Your task to perform on an android device: turn on translation in the chrome app Image 0: 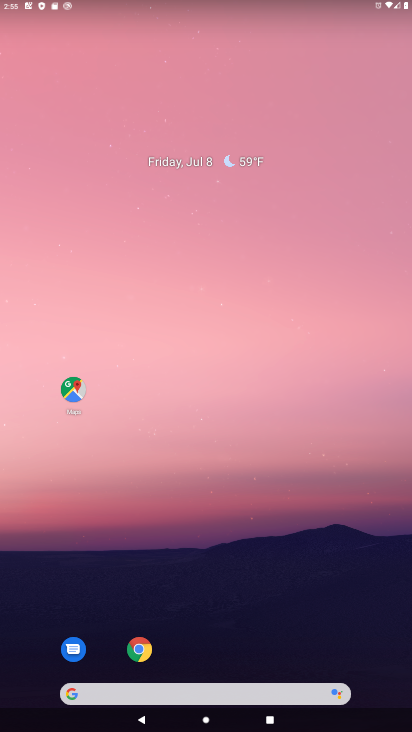
Step 0: drag from (262, 590) to (243, 119)
Your task to perform on an android device: turn on translation in the chrome app Image 1: 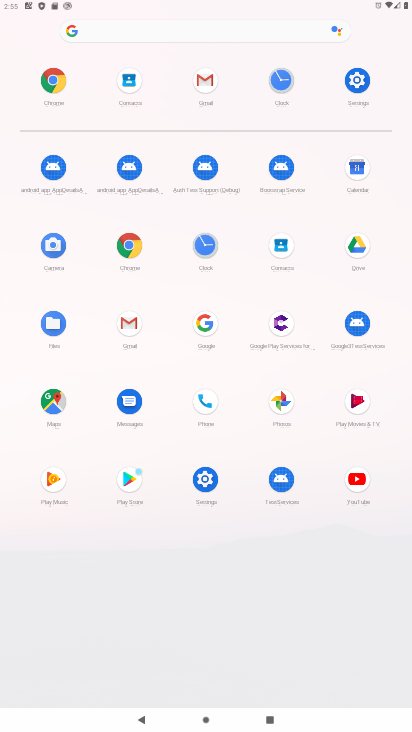
Step 1: click (132, 243)
Your task to perform on an android device: turn on translation in the chrome app Image 2: 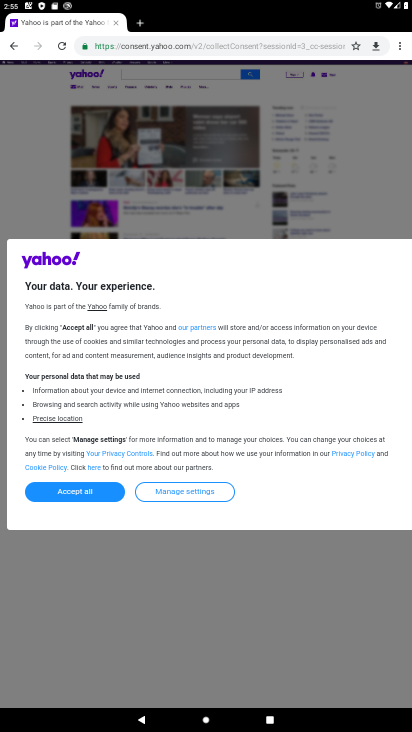
Step 2: drag from (399, 45) to (312, 302)
Your task to perform on an android device: turn on translation in the chrome app Image 3: 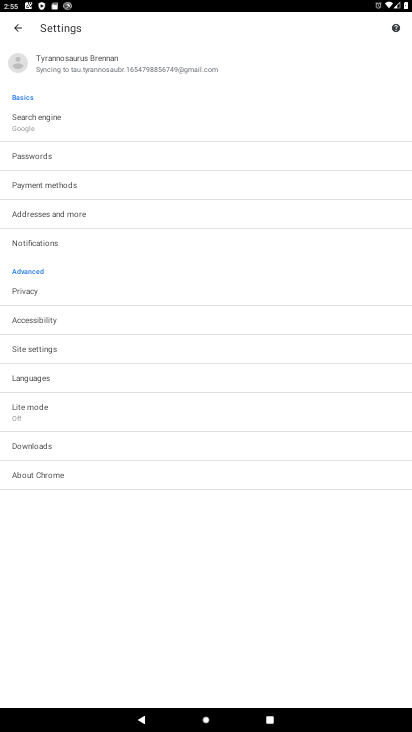
Step 3: click (39, 371)
Your task to perform on an android device: turn on translation in the chrome app Image 4: 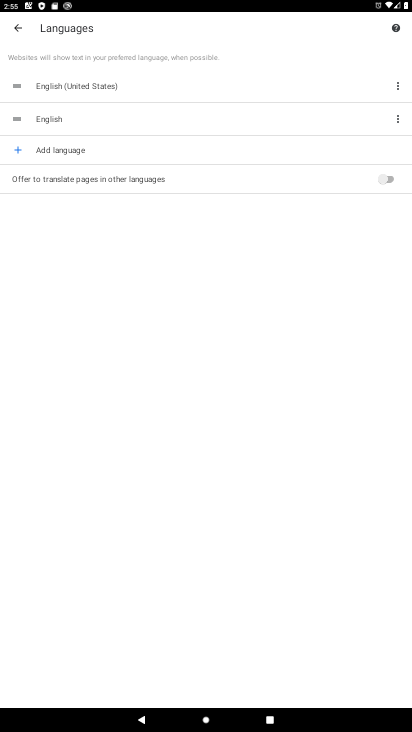
Step 4: click (391, 186)
Your task to perform on an android device: turn on translation in the chrome app Image 5: 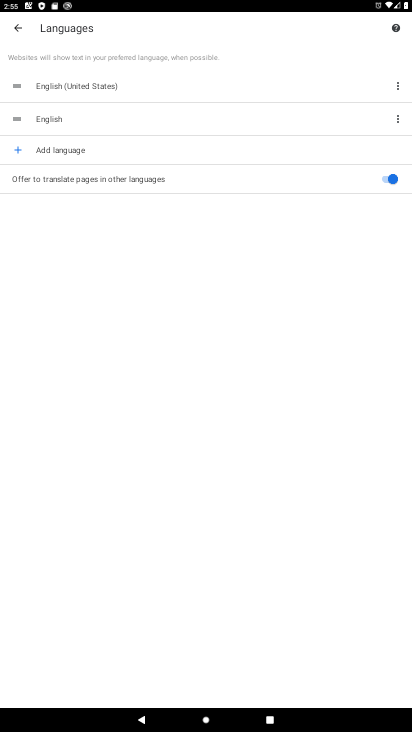
Step 5: task complete